Your task to perform on an android device: Open sound settings Image 0: 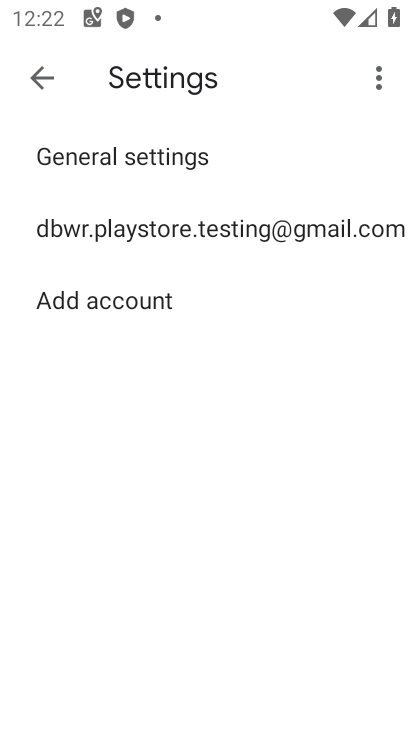
Step 0: press home button
Your task to perform on an android device: Open sound settings Image 1: 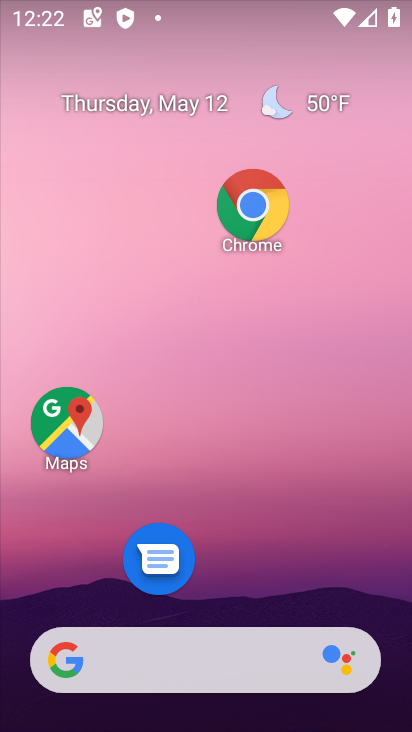
Step 1: drag from (238, 573) to (238, 105)
Your task to perform on an android device: Open sound settings Image 2: 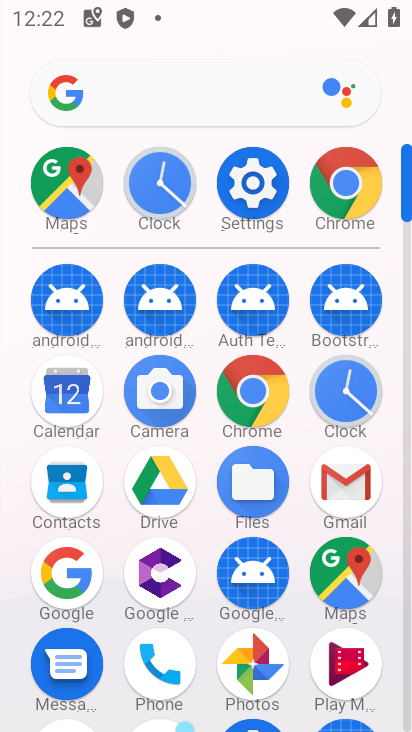
Step 2: click (256, 190)
Your task to perform on an android device: Open sound settings Image 3: 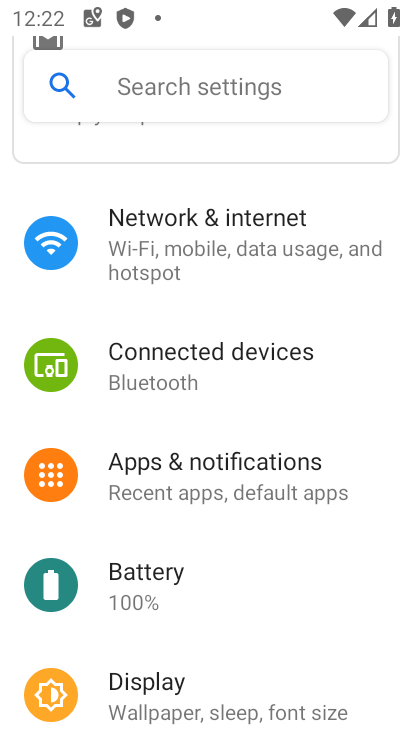
Step 3: drag from (225, 679) to (200, 323)
Your task to perform on an android device: Open sound settings Image 4: 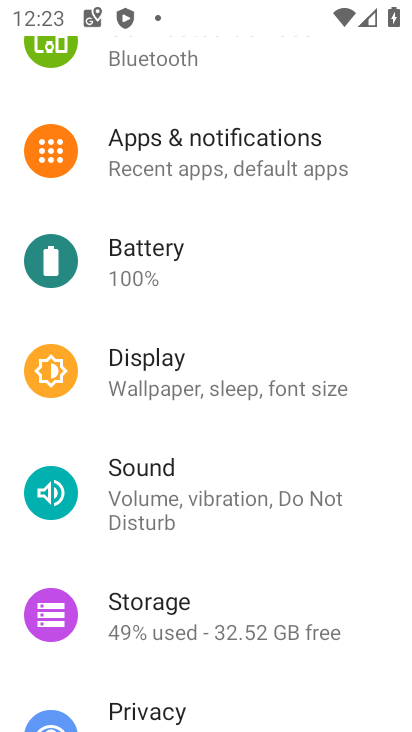
Step 4: drag from (240, 272) to (226, 631)
Your task to perform on an android device: Open sound settings Image 5: 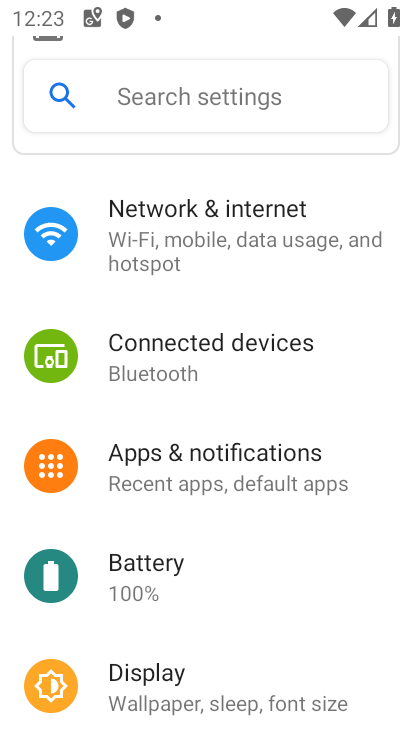
Step 5: drag from (185, 612) to (187, 251)
Your task to perform on an android device: Open sound settings Image 6: 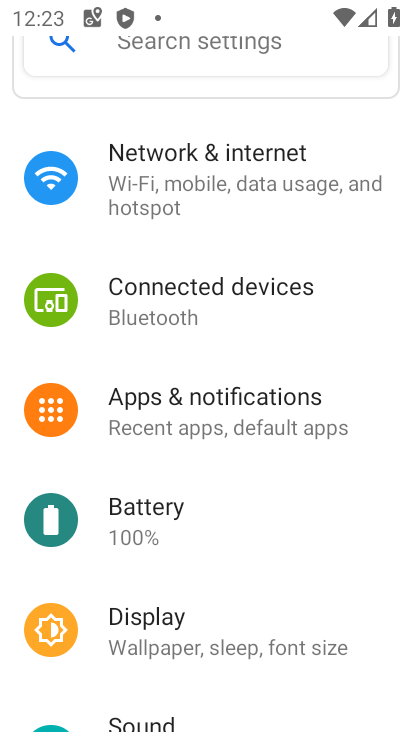
Step 6: drag from (194, 669) to (203, 329)
Your task to perform on an android device: Open sound settings Image 7: 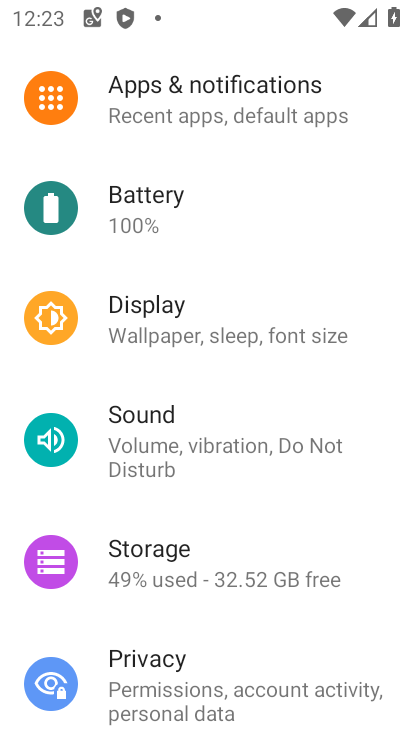
Step 7: click (156, 441)
Your task to perform on an android device: Open sound settings Image 8: 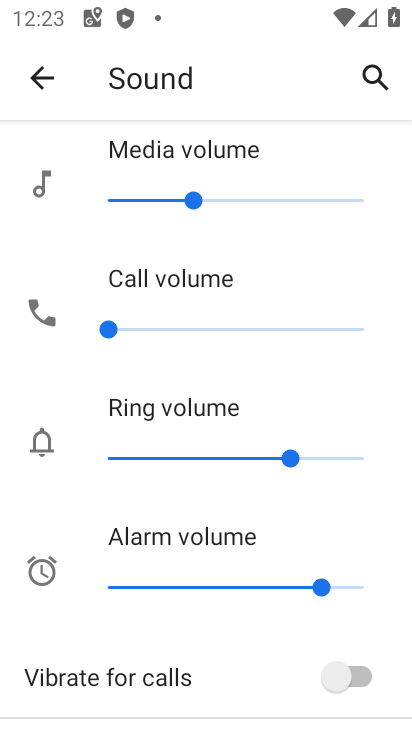
Step 8: task complete